Your task to perform on an android device: Show me popular videos on Youtube Image 0: 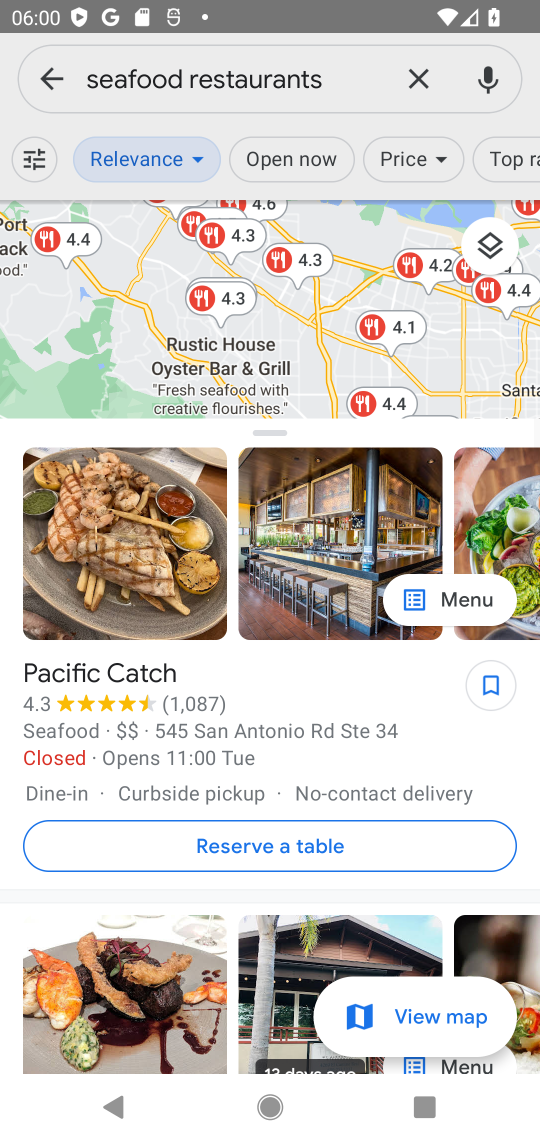
Step 0: press home button
Your task to perform on an android device: Show me popular videos on Youtube Image 1: 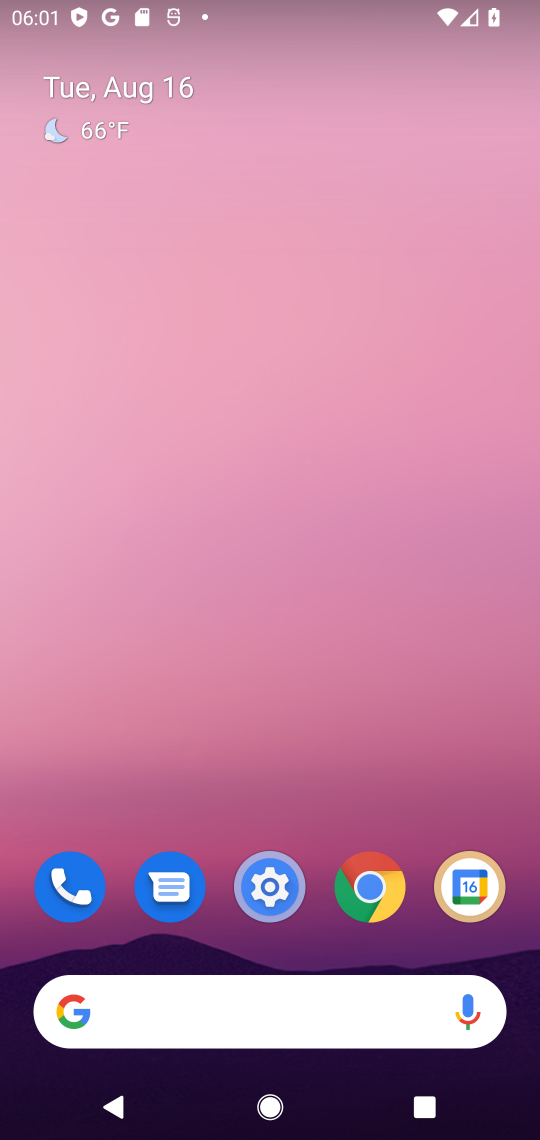
Step 1: drag from (304, 751) to (299, 153)
Your task to perform on an android device: Show me popular videos on Youtube Image 2: 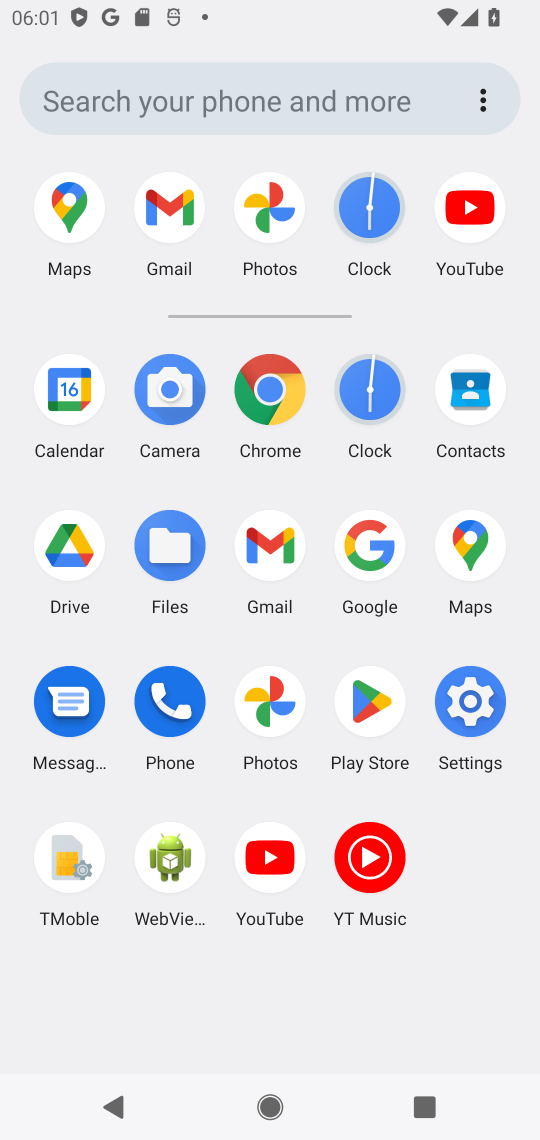
Step 2: click (283, 856)
Your task to perform on an android device: Show me popular videos on Youtube Image 3: 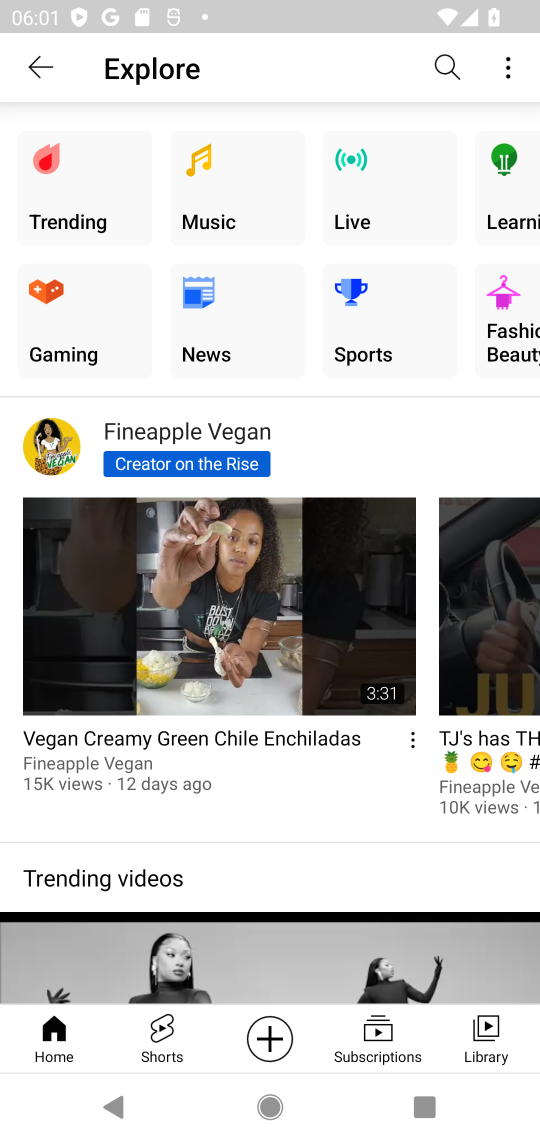
Step 3: task complete